Your task to perform on an android device: Open accessibility settings Image 0: 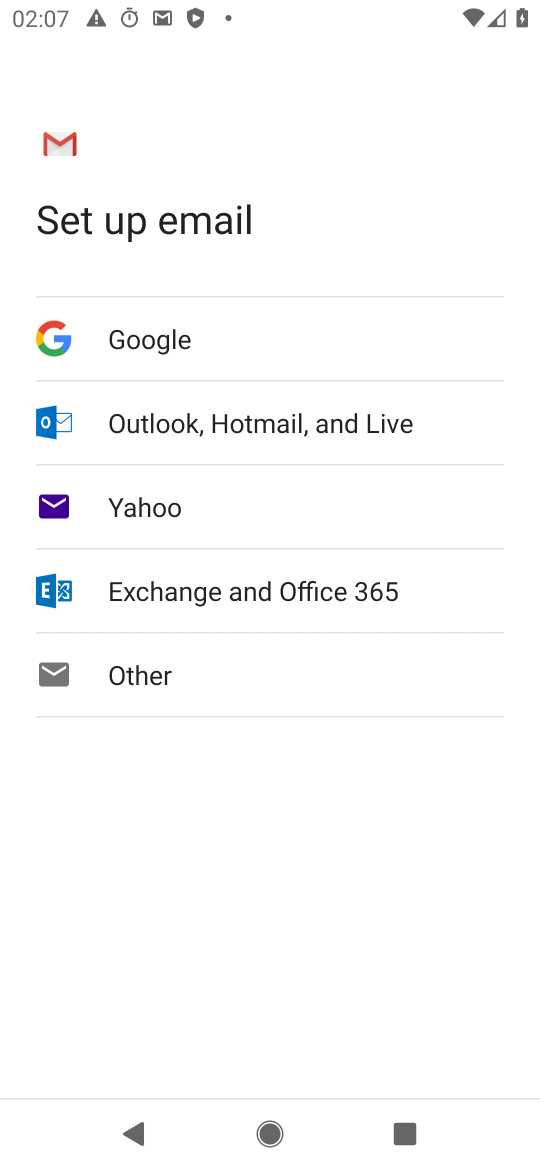
Step 0: press home button
Your task to perform on an android device: Open accessibility settings Image 1: 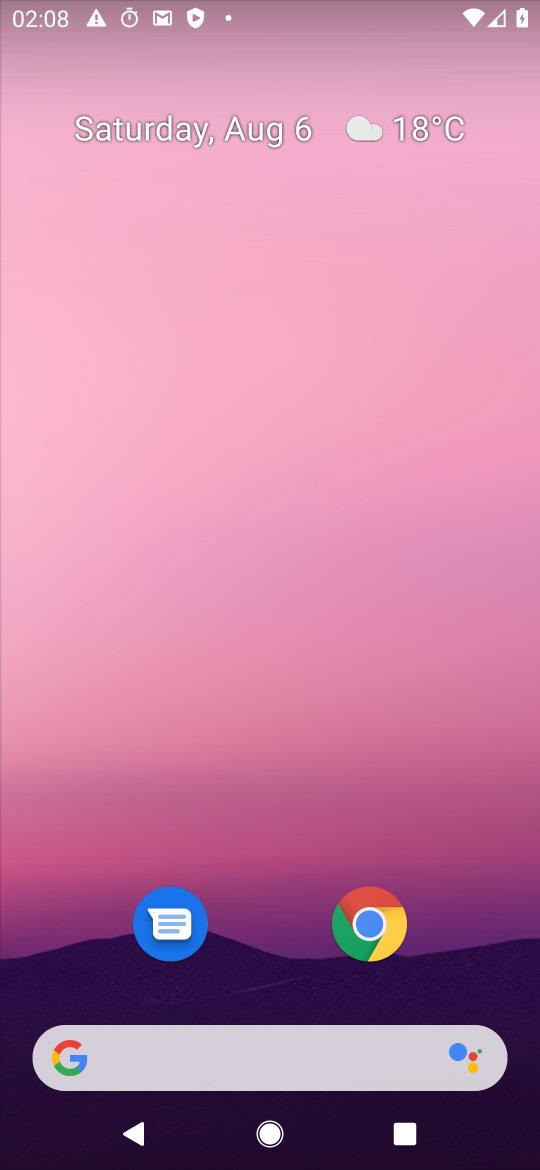
Step 1: drag from (323, 1062) to (224, 22)
Your task to perform on an android device: Open accessibility settings Image 2: 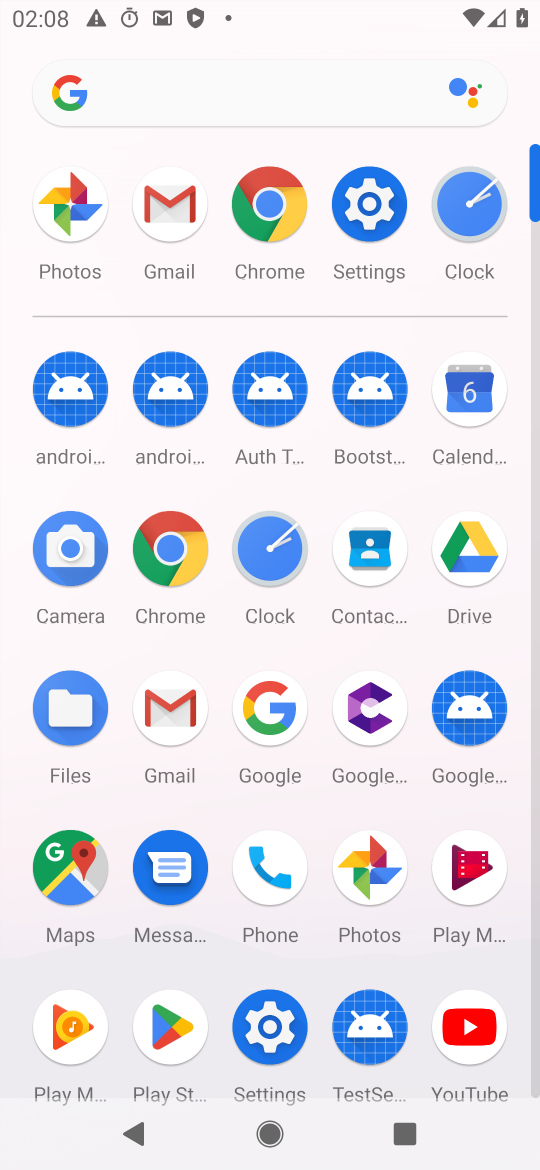
Step 2: click (379, 217)
Your task to perform on an android device: Open accessibility settings Image 3: 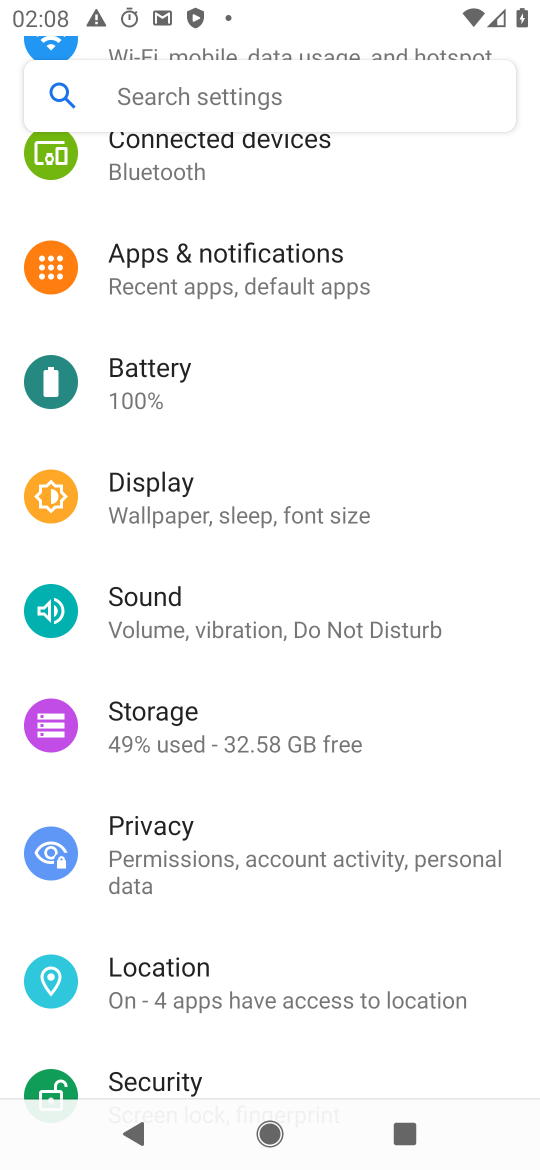
Step 3: drag from (495, 968) to (377, 475)
Your task to perform on an android device: Open accessibility settings Image 4: 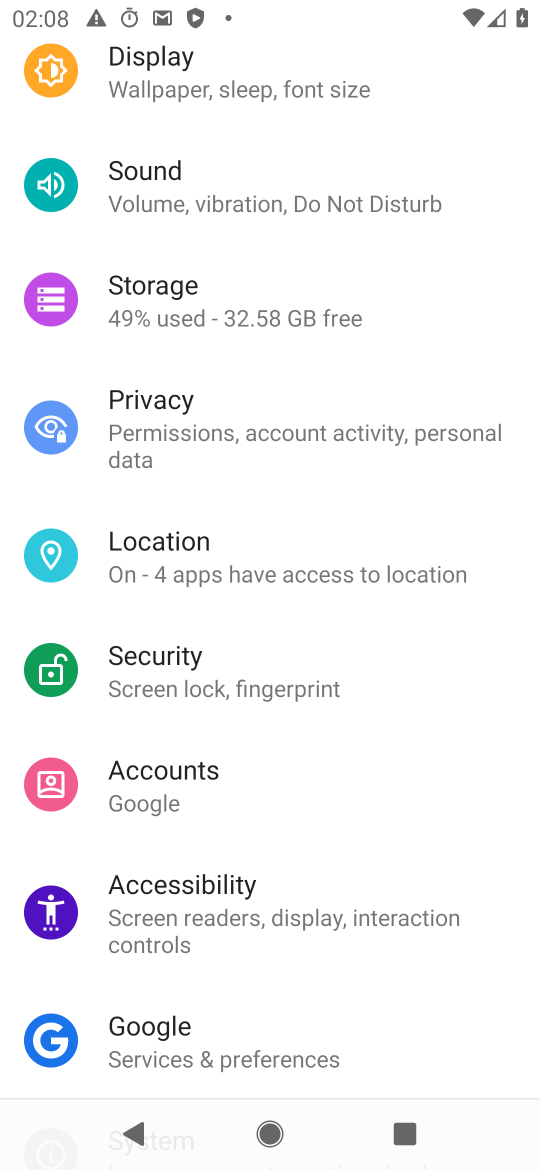
Step 4: click (246, 909)
Your task to perform on an android device: Open accessibility settings Image 5: 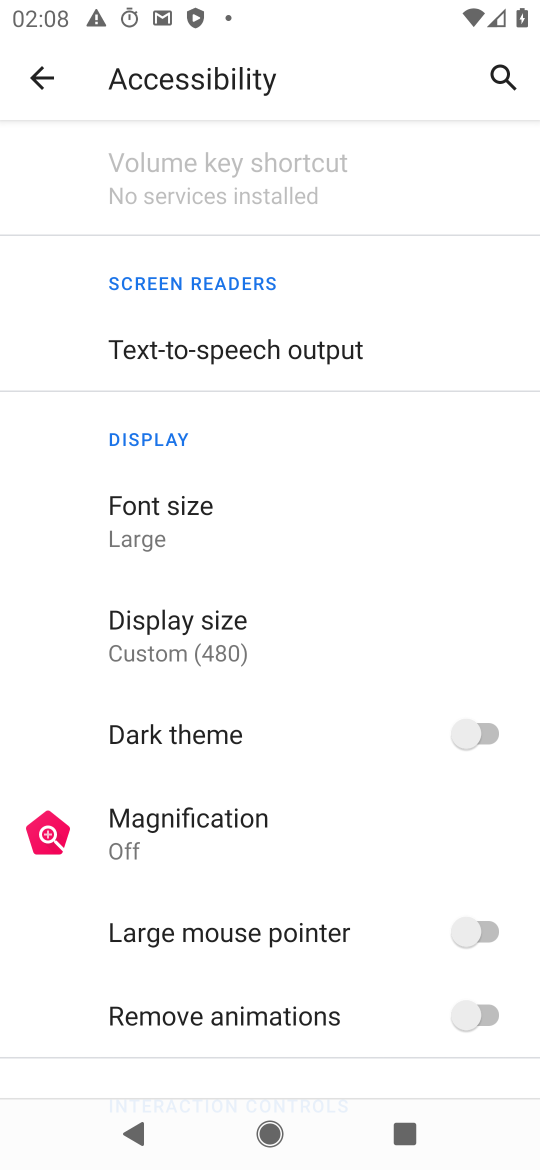
Step 5: task complete